Your task to perform on an android device: turn off data saver in the chrome app Image 0: 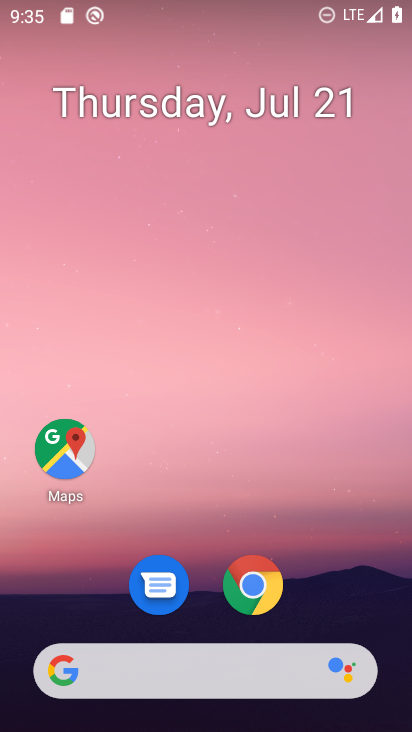
Step 0: click (263, 585)
Your task to perform on an android device: turn off data saver in the chrome app Image 1: 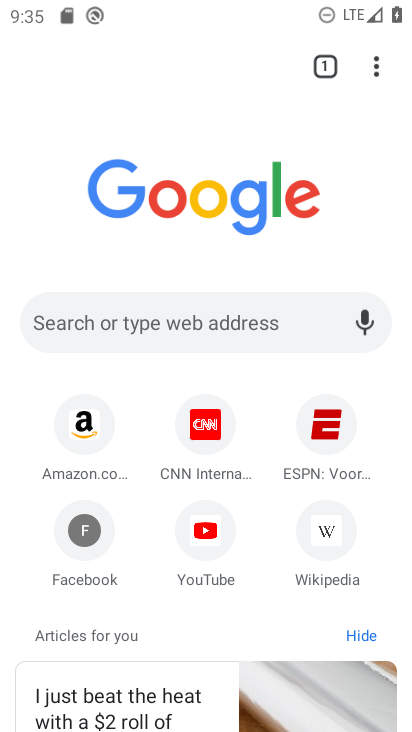
Step 1: click (380, 67)
Your task to perform on an android device: turn off data saver in the chrome app Image 2: 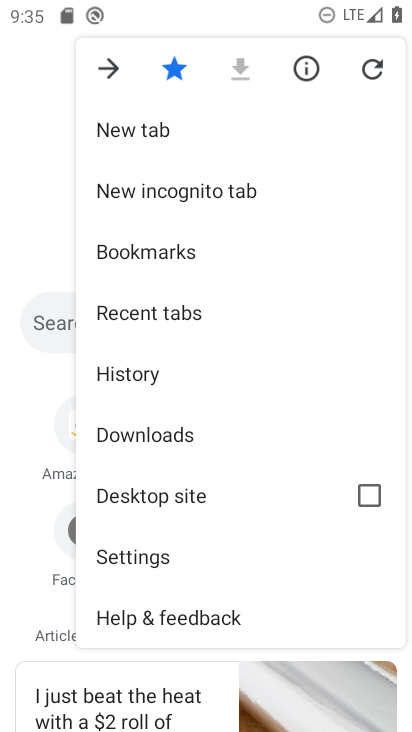
Step 2: click (162, 551)
Your task to perform on an android device: turn off data saver in the chrome app Image 3: 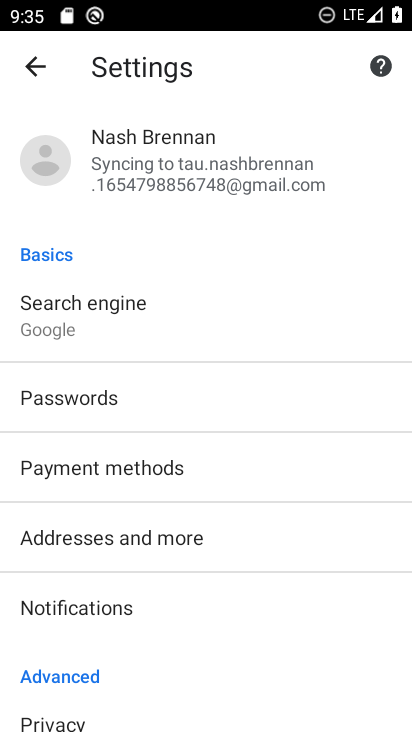
Step 3: drag from (224, 617) to (252, 100)
Your task to perform on an android device: turn off data saver in the chrome app Image 4: 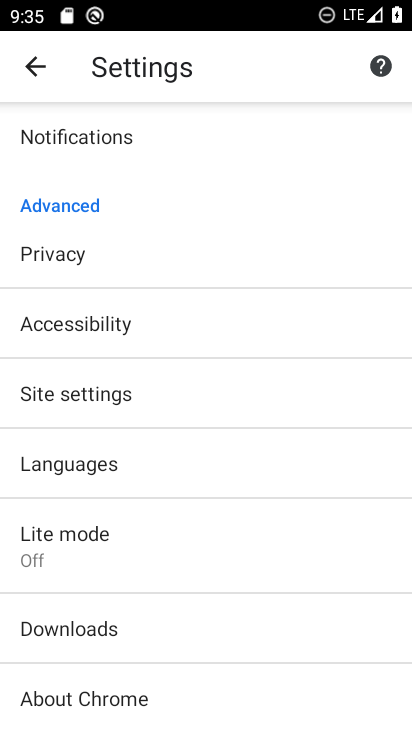
Step 4: click (107, 539)
Your task to perform on an android device: turn off data saver in the chrome app Image 5: 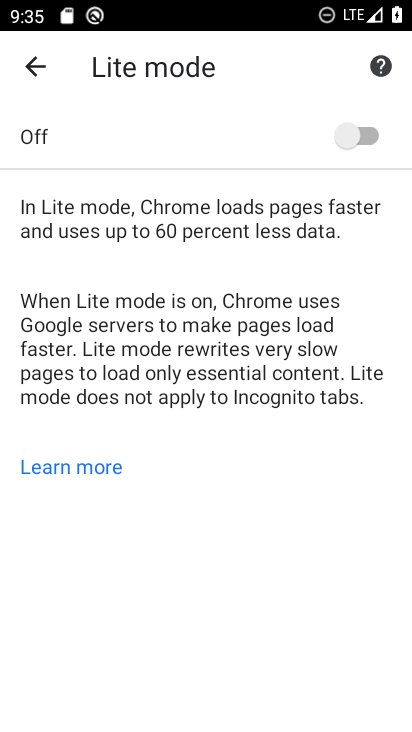
Step 5: task complete